Your task to perform on an android device: Open notification settings Image 0: 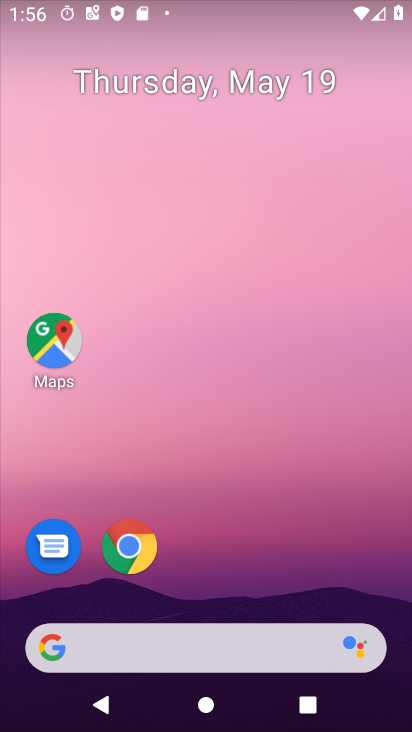
Step 0: drag from (158, 598) to (244, 51)
Your task to perform on an android device: Open notification settings Image 1: 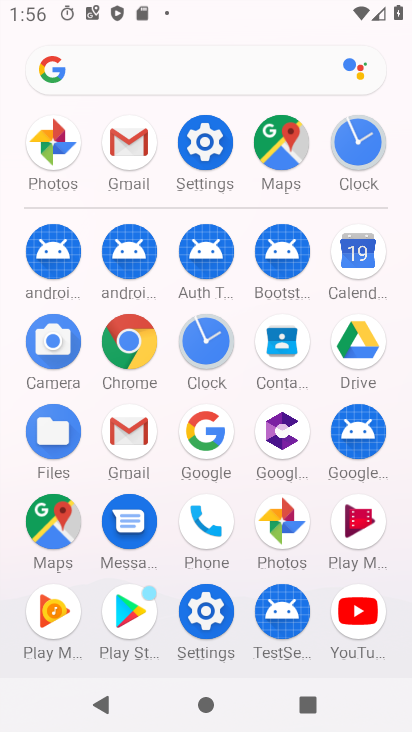
Step 1: click (207, 132)
Your task to perform on an android device: Open notification settings Image 2: 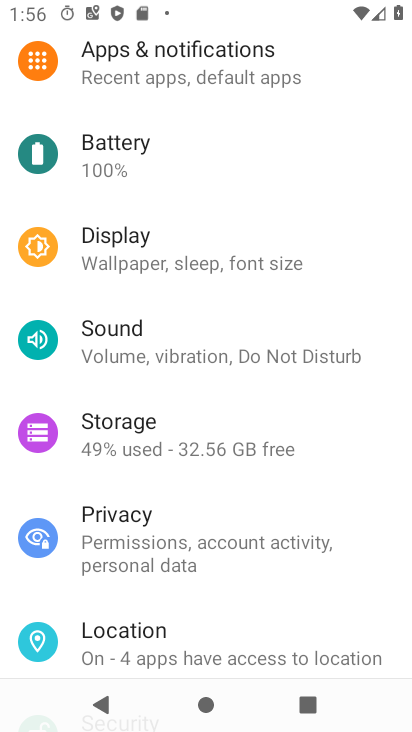
Step 2: click (172, 82)
Your task to perform on an android device: Open notification settings Image 3: 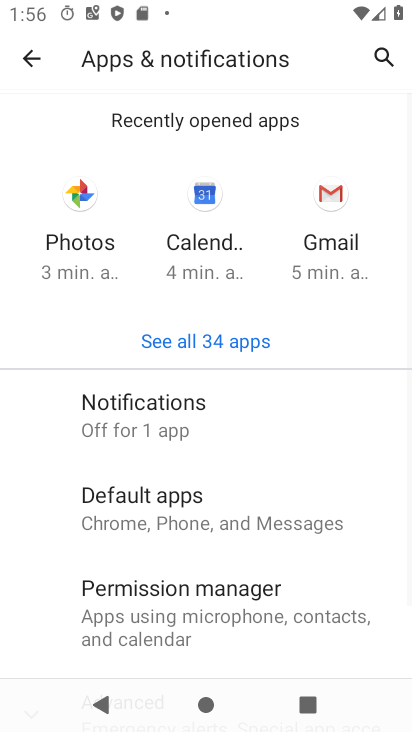
Step 3: task complete